Your task to perform on an android device: Show me popular games on the Play Store Image 0: 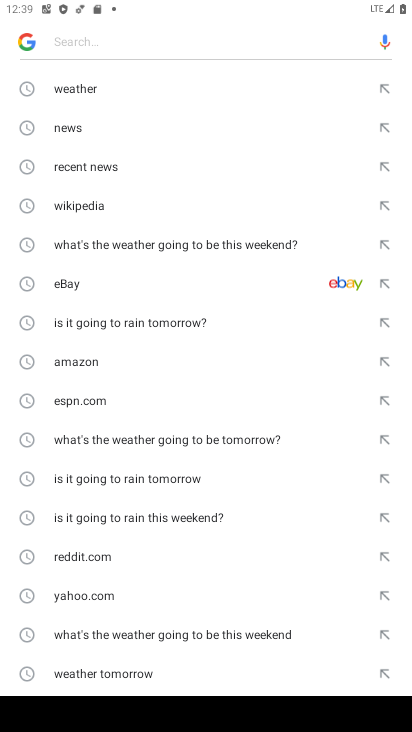
Step 0: press home button
Your task to perform on an android device: Show me popular games on the Play Store Image 1: 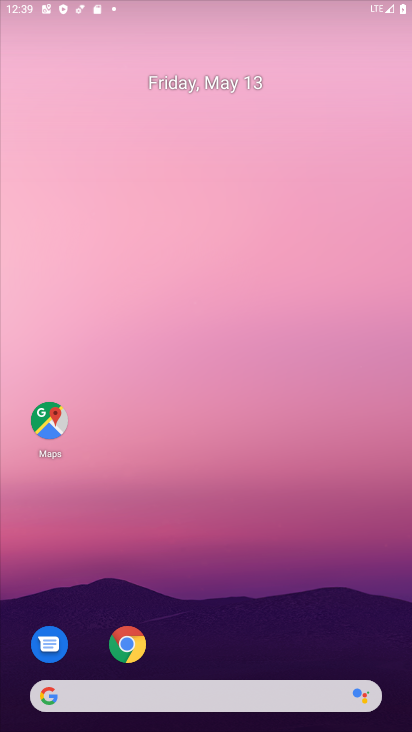
Step 1: drag from (348, 632) to (229, 67)
Your task to perform on an android device: Show me popular games on the Play Store Image 2: 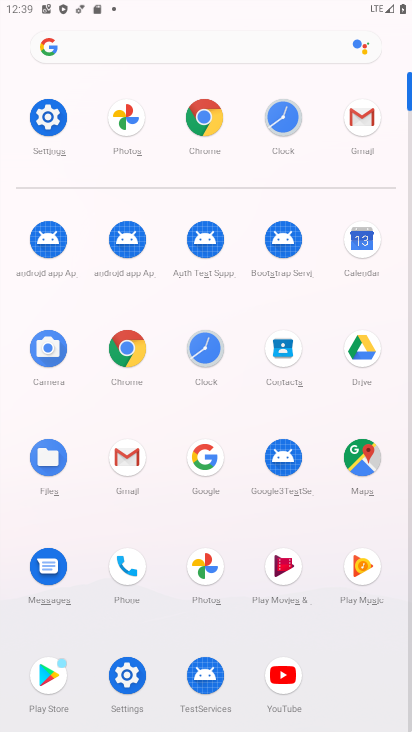
Step 2: click (43, 675)
Your task to perform on an android device: Show me popular games on the Play Store Image 3: 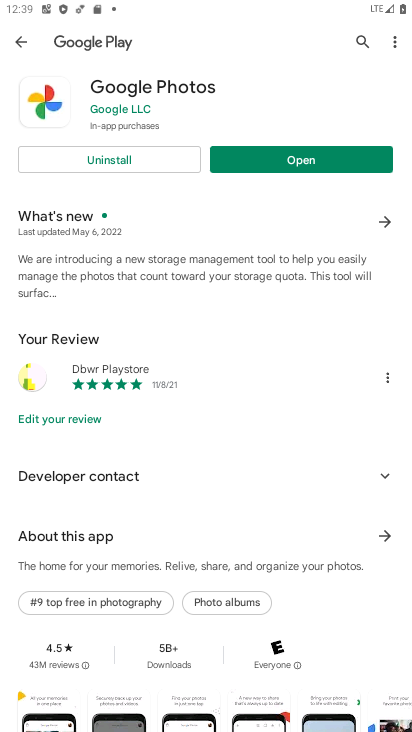
Step 3: press back button
Your task to perform on an android device: Show me popular games on the Play Store Image 4: 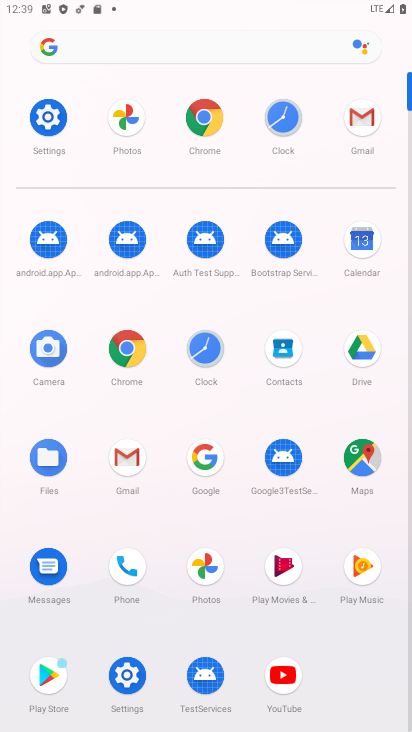
Step 4: click (59, 668)
Your task to perform on an android device: Show me popular games on the Play Store Image 5: 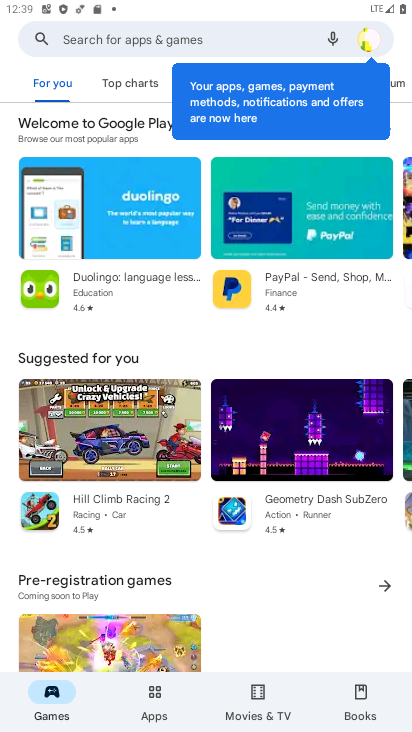
Step 5: task complete